Your task to perform on an android device: delete location history Image 0: 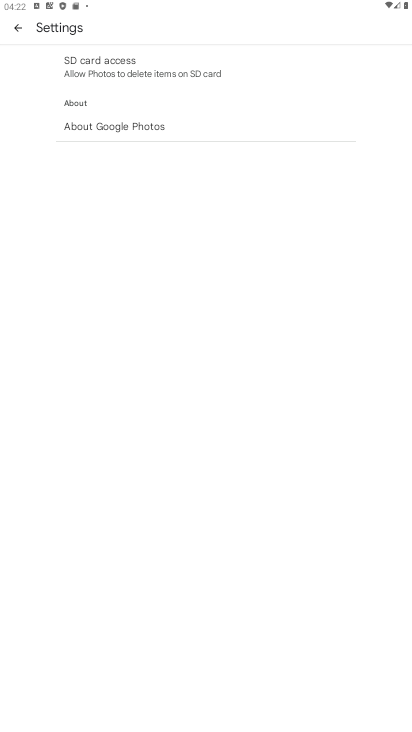
Step 0: press home button
Your task to perform on an android device: delete location history Image 1: 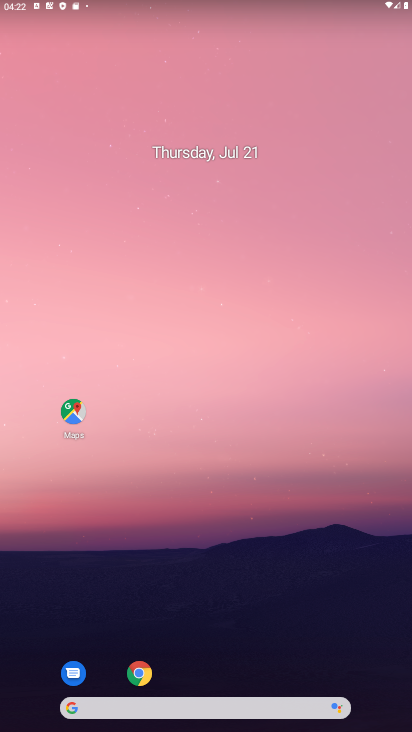
Step 1: click (73, 413)
Your task to perform on an android device: delete location history Image 2: 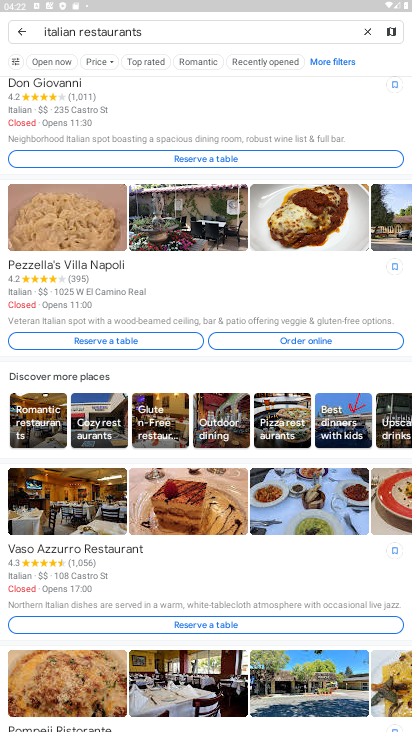
Step 2: click (364, 30)
Your task to perform on an android device: delete location history Image 3: 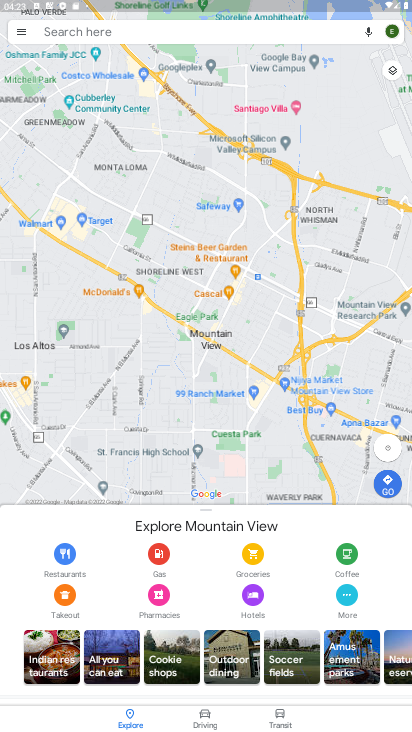
Step 3: click (19, 35)
Your task to perform on an android device: delete location history Image 4: 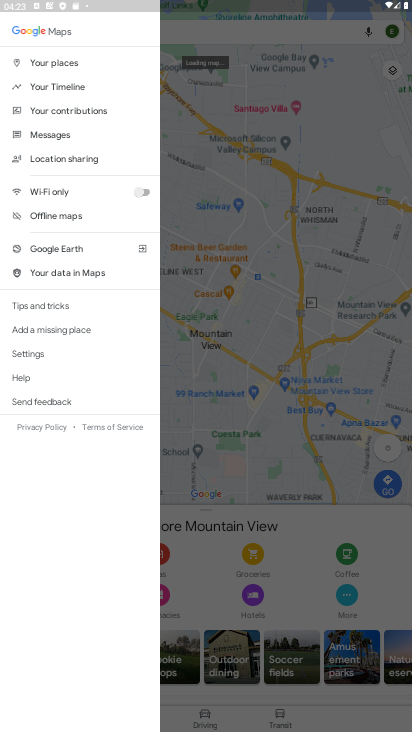
Step 4: click (33, 348)
Your task to perform on an android device: delete location history Image 5: 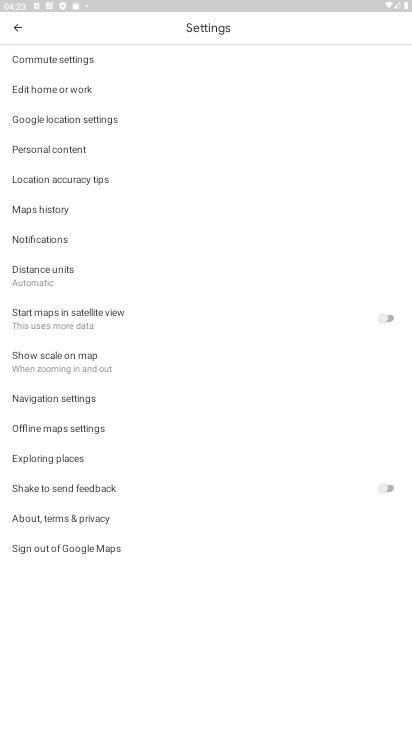
Step 5: click (37, 144)
Your task to perform on an android device: delete location history Image 6: 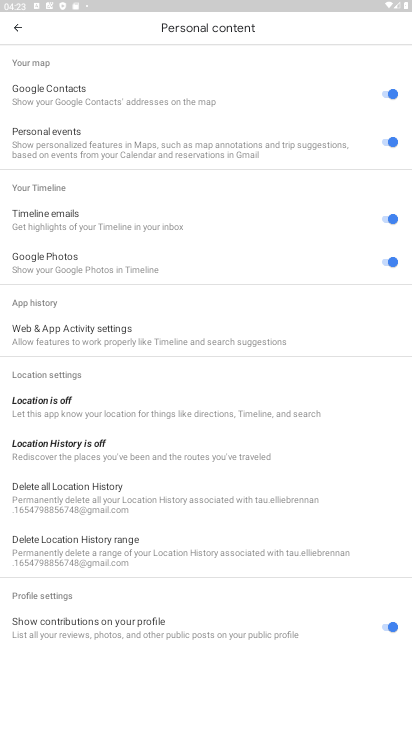
Step 6: click (55, 493)
Your task to perform on an android device: delete location history Image 7: 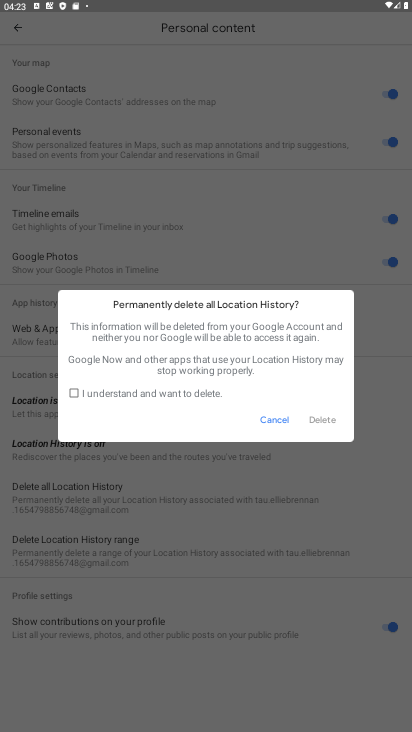
Step 7: click (72, 392)
Your task to perform on an android device: delete location history Image 8: 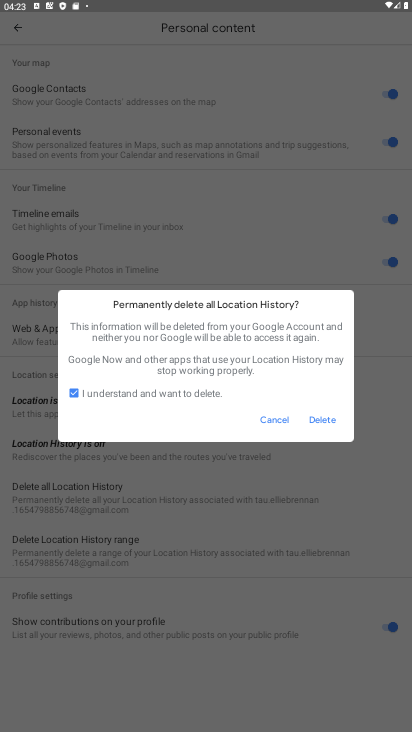
Step 8: click (319, 423)
Your task to perform on an android device: delete location history Image 9: 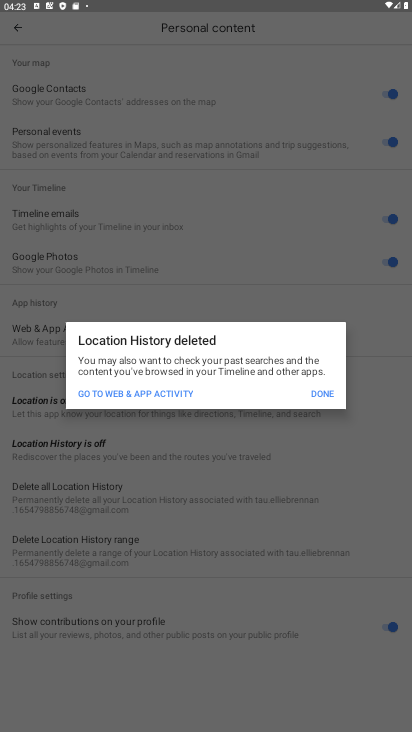
Step 9: click (319, 395)
Your task to perform on an android device: delete location history Image 10: 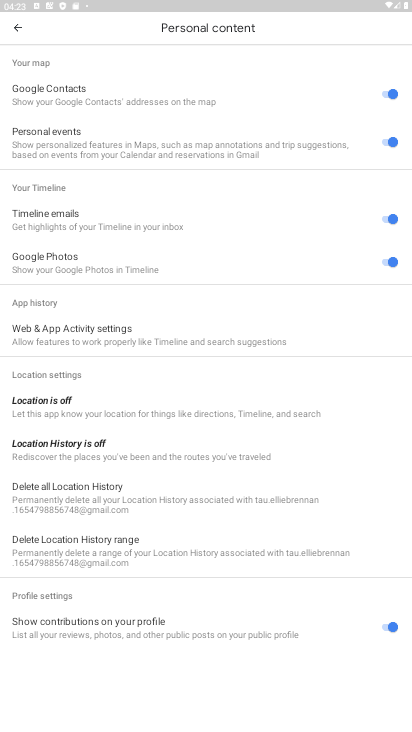
Step 10: task complete